Your task to perform on an android device: turn vacation reply on in the gmail app Image 0: 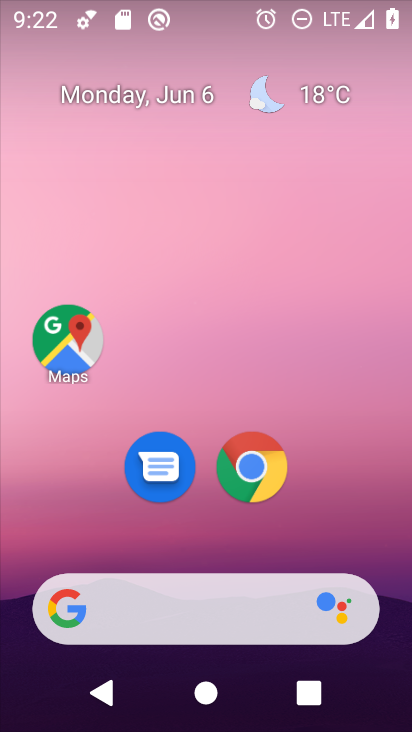
Step 0: drag from (373, 530) to (406, 312)
Your task to perform on an android device: turn vacation reply on in the gmail app Image 1: 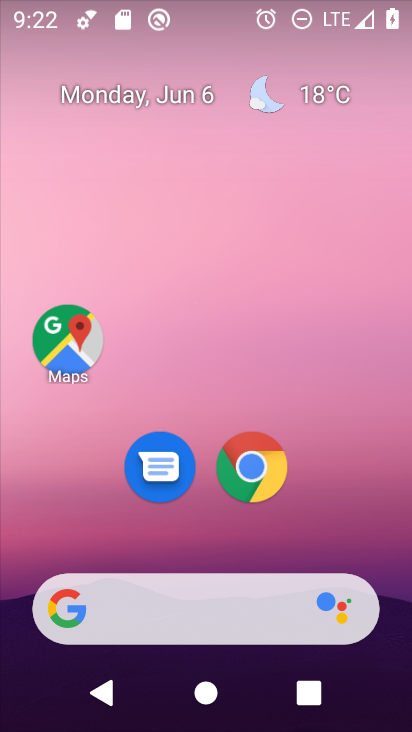
Step 1: drag from (327, 501) to (360, 43)
Your task to perform on an android device: turn vacation reply on in the gmail app Image 2: 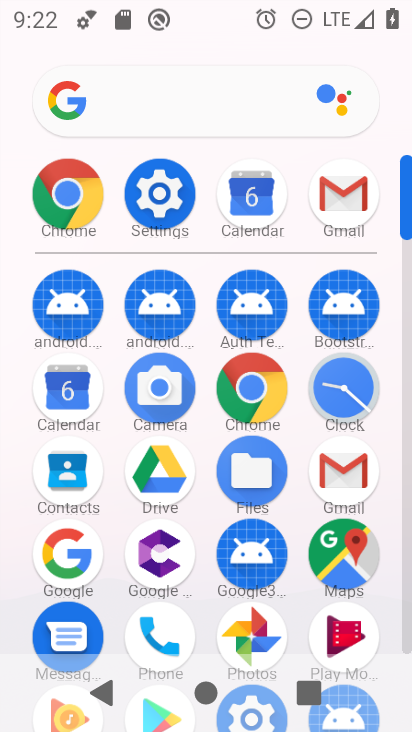
Step 2: click (366, 472)
Your task to perform on an android device: turn vacation reply on in the gmail app Image 3: 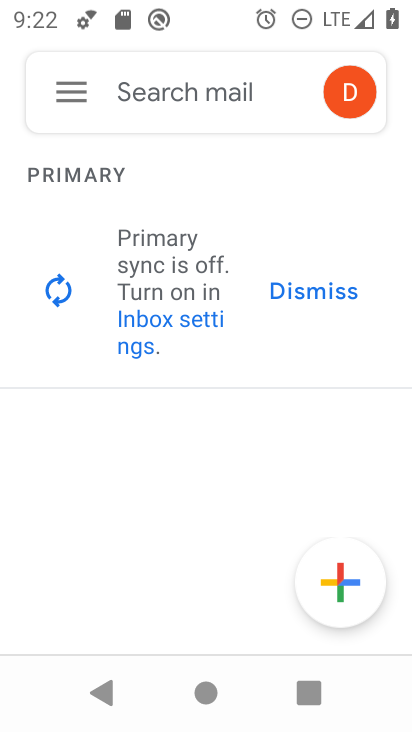
Step 3: click (69, 106)
Your task to perform on an android device: turn vacation reply on in the gmail app Image 4: 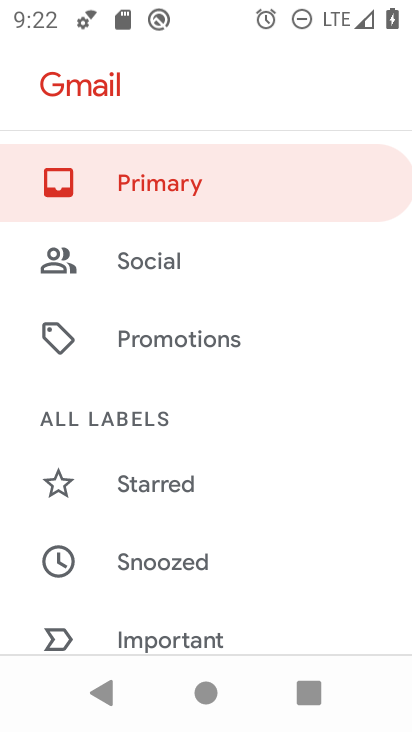
Step 4: drag from (338, 470) to (358, 309)
Your task to perform on an android device: turn vacation reply on in the gmail app Image 5: 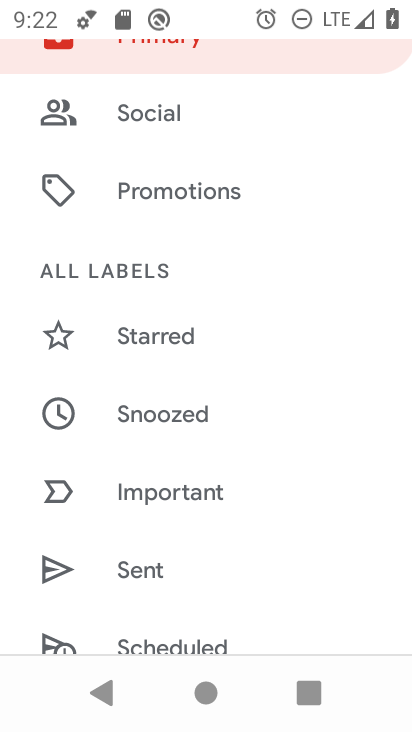
Step 5: drag from (351, 486) to (346, 317)
Your task to perform on an android device: turn vacation reply on in the gmail app Image 6: 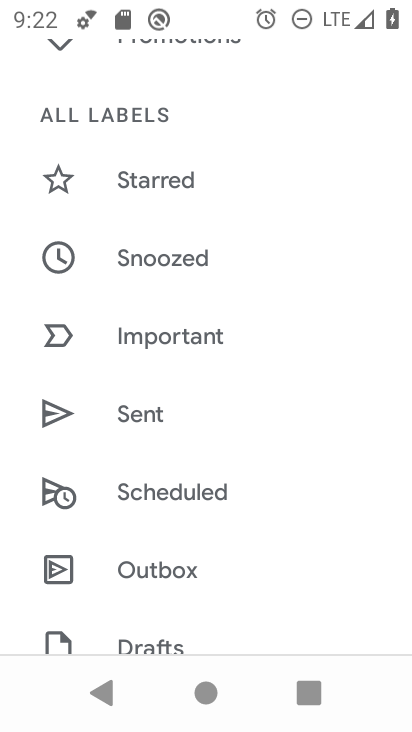
Step 6: drag from (357, 456) to (357, 319)
Your task to perform on an android device: turn vacation reply on in the gmail app Image 7: 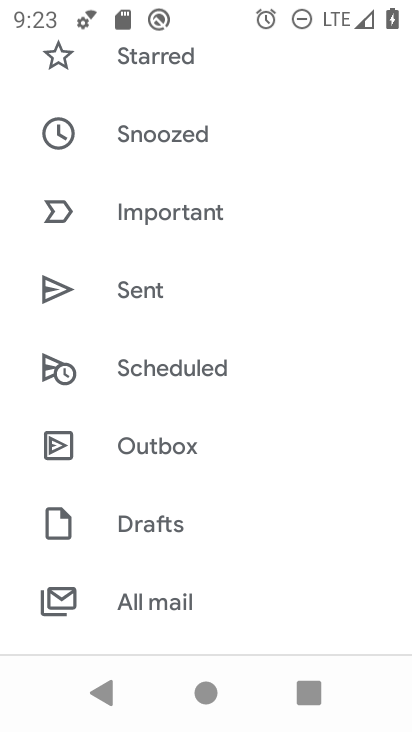
Step 7: drag from (338, 478) to (346, 271)
Your task to perform on an android device: turn vacation reply on in the gmail app Image 8: 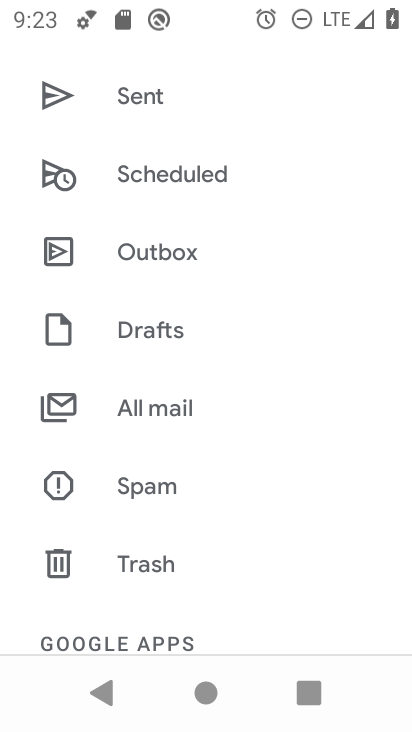
Step 8: drag from (338, 505) to (349, 218)
Your task to perform on an android device: turn vacation reply on in the gmail app Image 9: 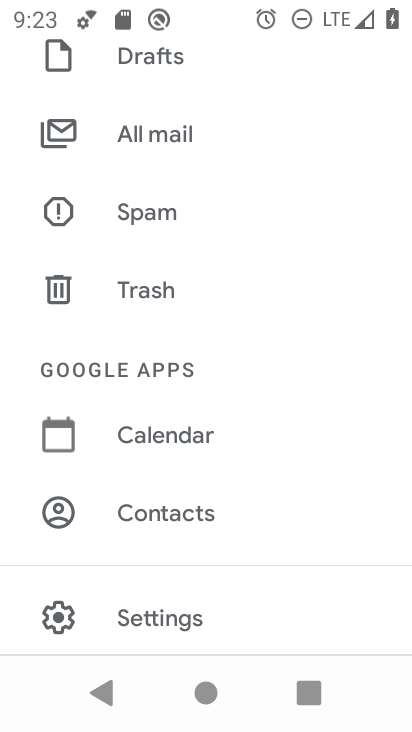
Step 9: drag from (339, 539) to (341, 334)
Your task to perform on an android device: turn vacation reply on in the gmail app Image 10: 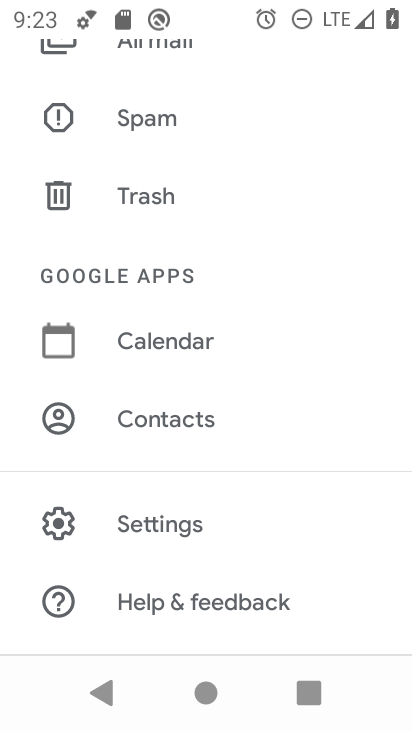
Step 10: click (207, 529)
Your task to perform on an android device: turn vacation reply on in the gmail app Image 11: 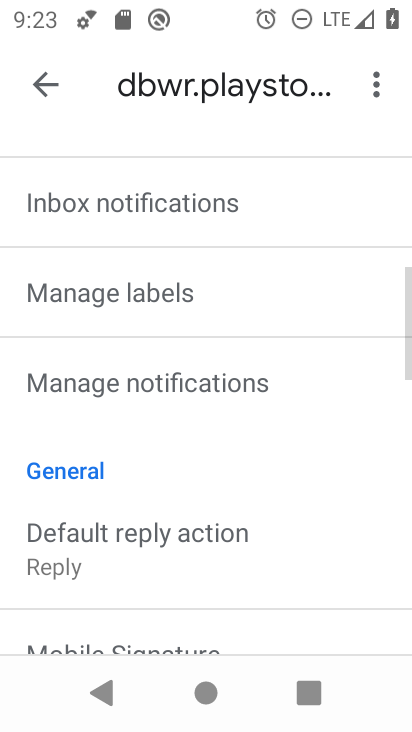
Step 11: drag from (355, 488) to (345, 322)
Your task to perform on an android device: turn vacation reply on in the gmail app Image 12: 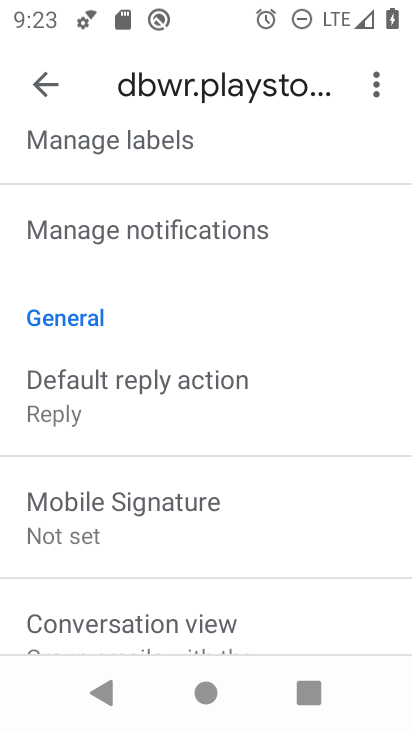
Step 12: drag from (327, 512) to (324, 317)
Your task to perform on an android device: turn vacation reply on in the gmail app Image 13: 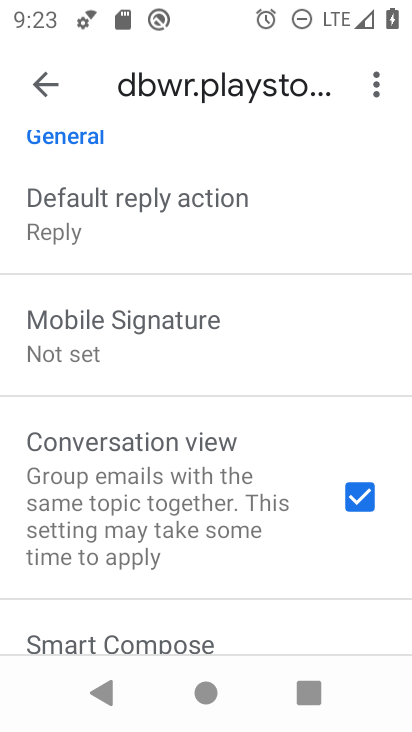
Step 13: drag from (288, 564) to (305, 326)
Your task to perform on an android device: turn vacation reply on in the gmail app Image 14: 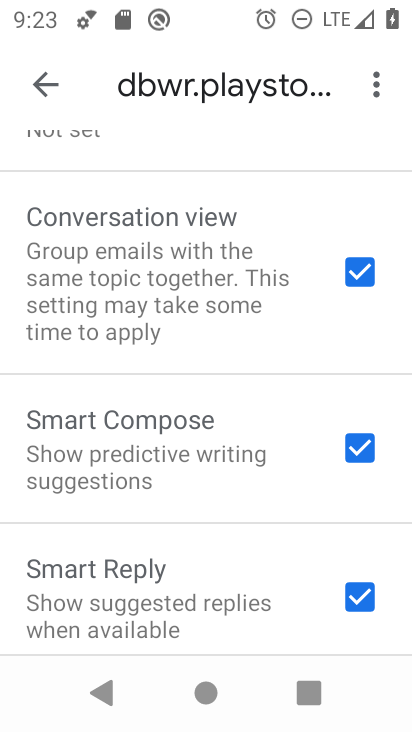
Step 14: drag from (283, 579) to (281, 402)
Your task to perform on an android device: turn vacation reply on in the gmail app Image 15: 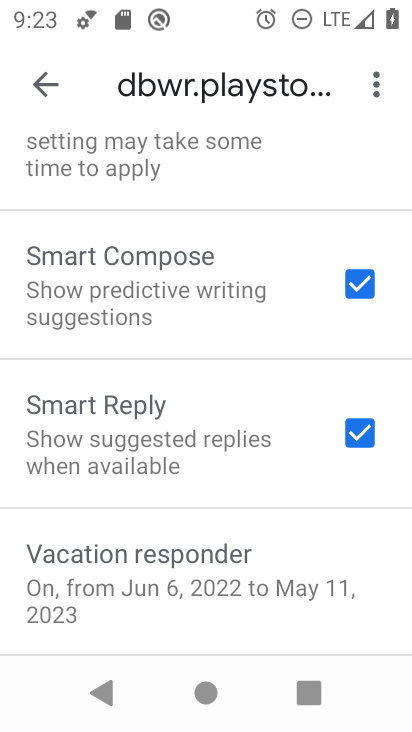
Step 15: click (229, 588)
Your task to perform on an android device: turn vacation reply on in the gmail app Image 16: 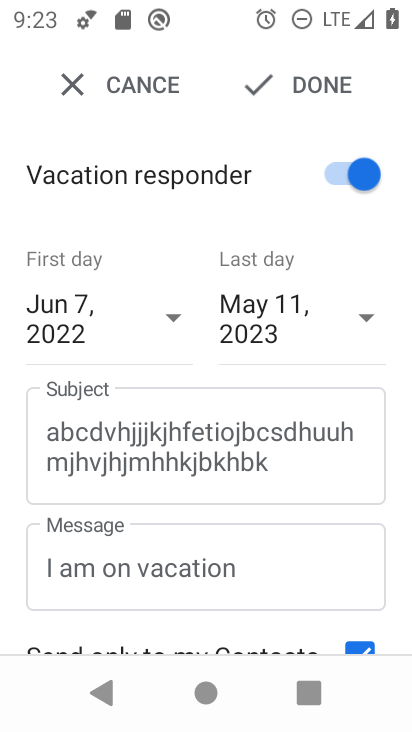
Step 16: task complete